Your task to perform on an android device: Open location settings Image 0: 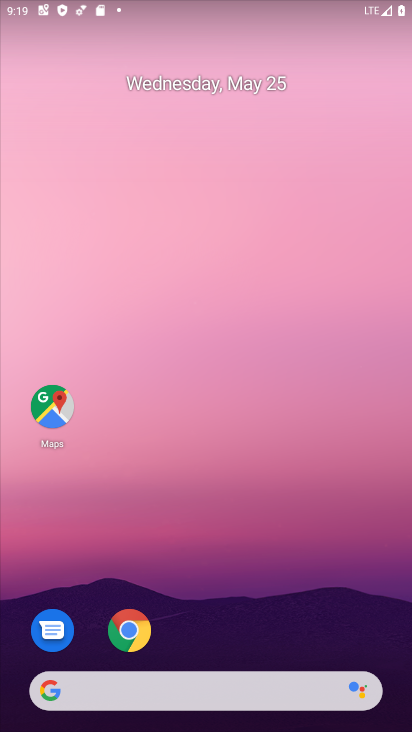
Step 0: drag from (200, 580) to (226, 85)
Your task to perform on an android device: Open location settings Image 1: 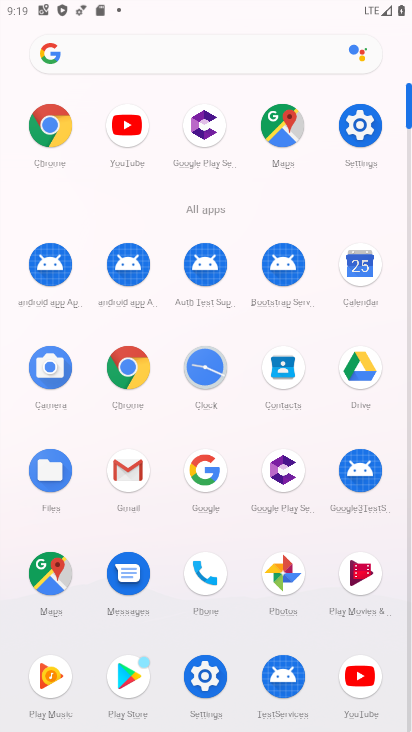
Step 1: click (376, 129)
Your task to perform on an android device: Open location settings Image 2: 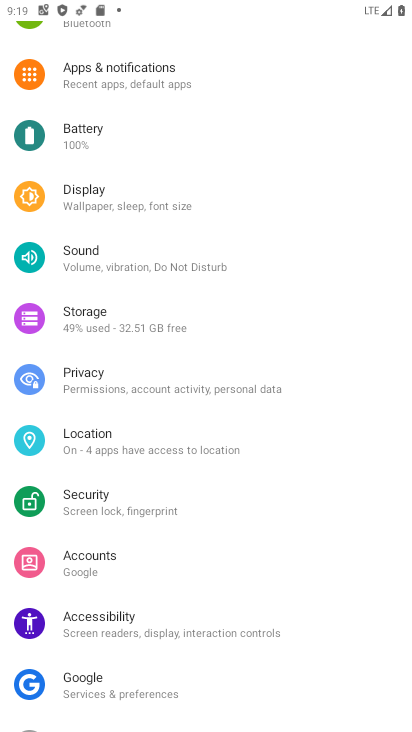
Step 2: click (100, 435)
Your task to perform on an android device: Open location settings Image 3: 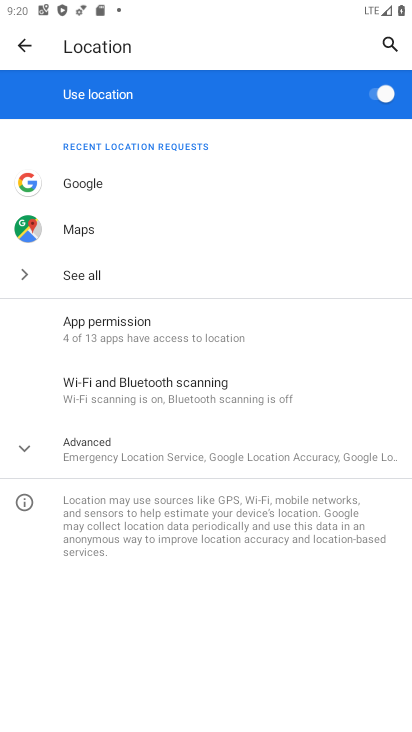
Step 3: task complete